Your task to perform on an android device: What's the weather? Image 0: 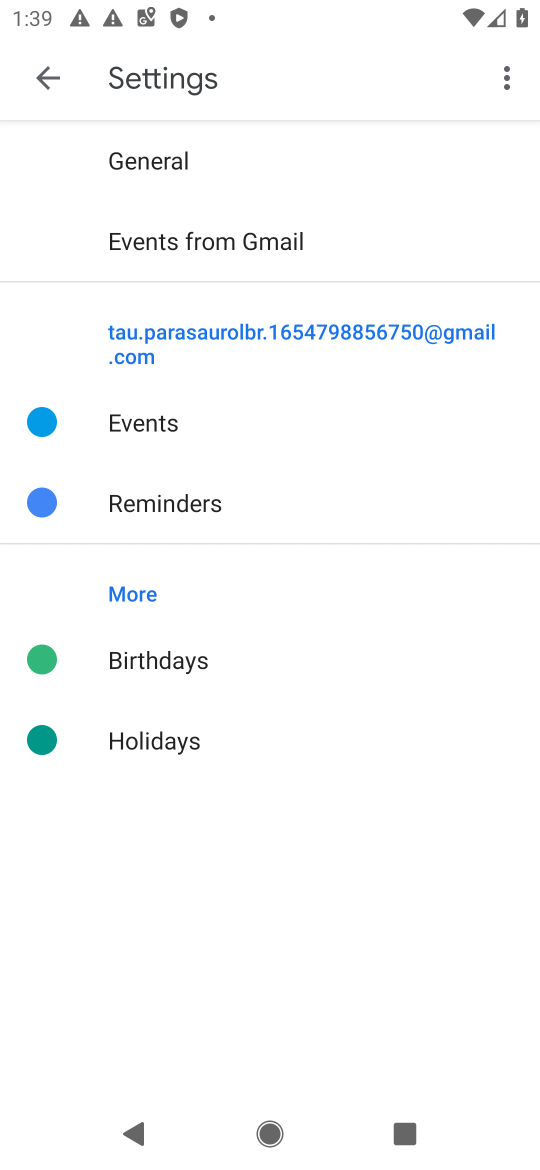
Step 0: press home button
Your task to perform on an android device: What's the weather? Image 1: 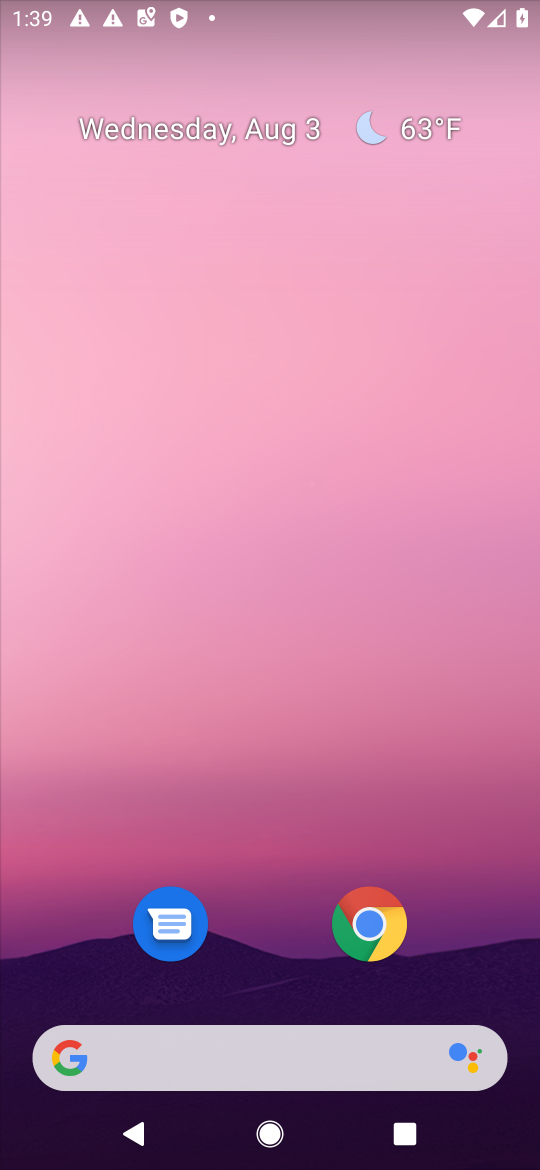
Step 1: click (242, 1055)
Your task to perform on an android device: What's the weather? Image 2: 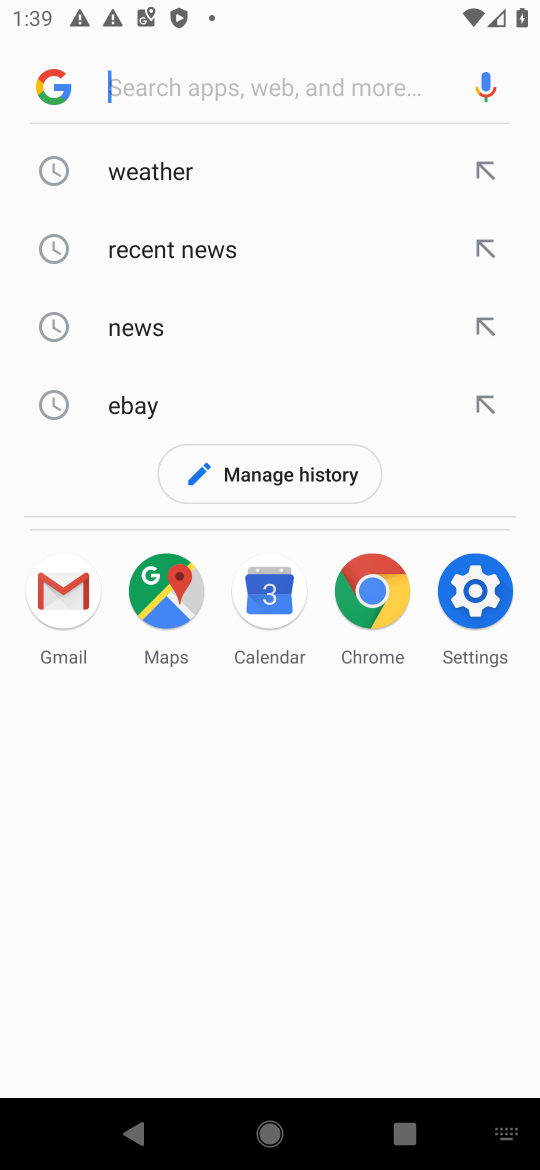
Step 2: click (204, 167)
Your task to perform on an android device: What's the weather? Image 3: 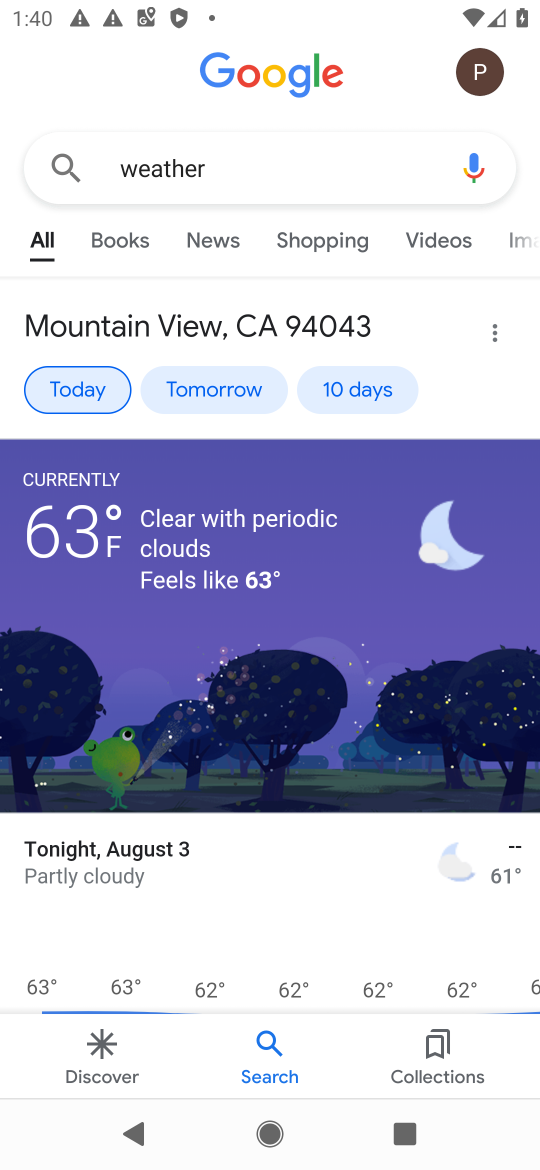
Step 3: task complete